Your task to perform on an android device: toggle wifi Image 0: 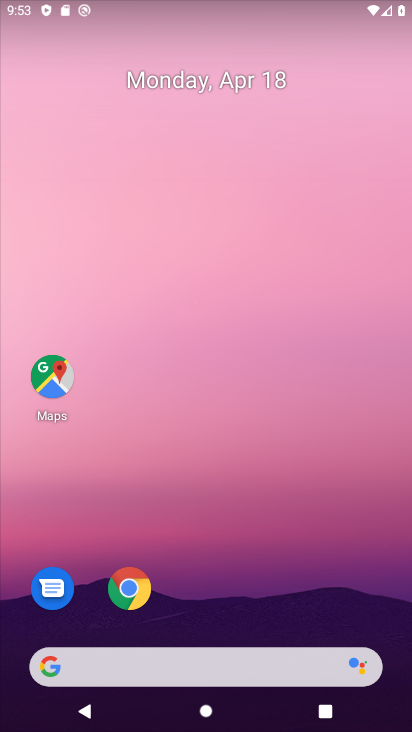
Step 0: drag from (388, 631) to (335, 211)
Your task to perform on an android device: toggle wifi Image 1: 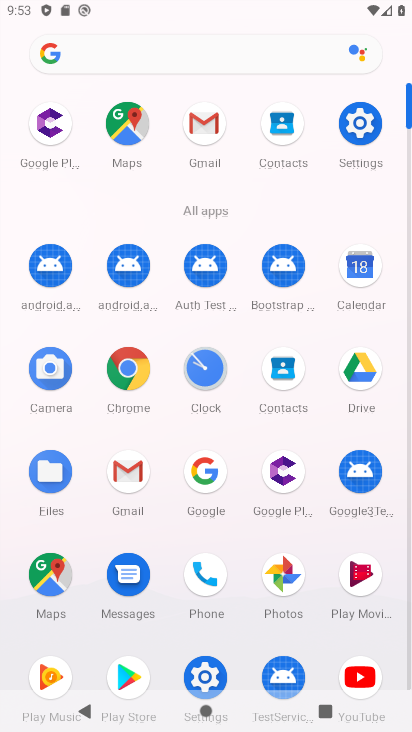
Step 1: click (197, 676)
Your task to perform on an android device: toggle wifi Image 2: 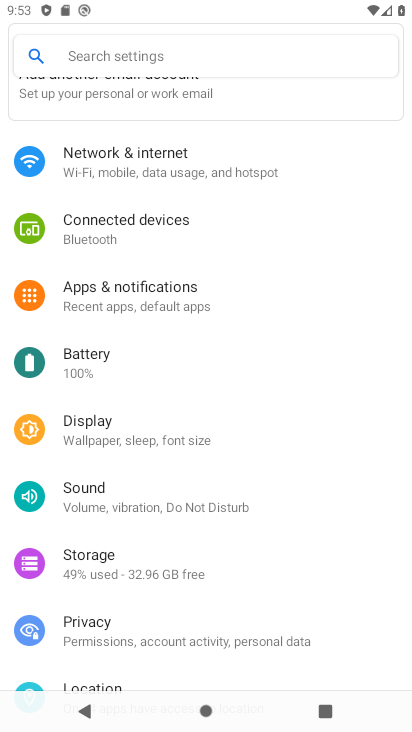
Step 2: click (129, 156)
Your task to perform on an android device: toggle wifi Image 3: 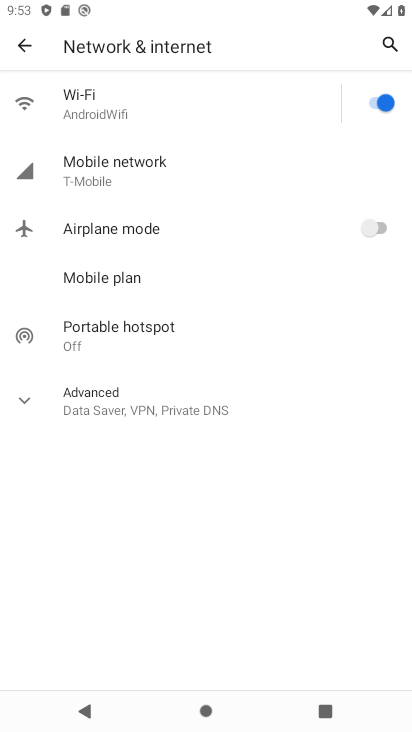
Step 3: click (374, 99)
Your task to perform on an android device: toggle wifi Image 4: 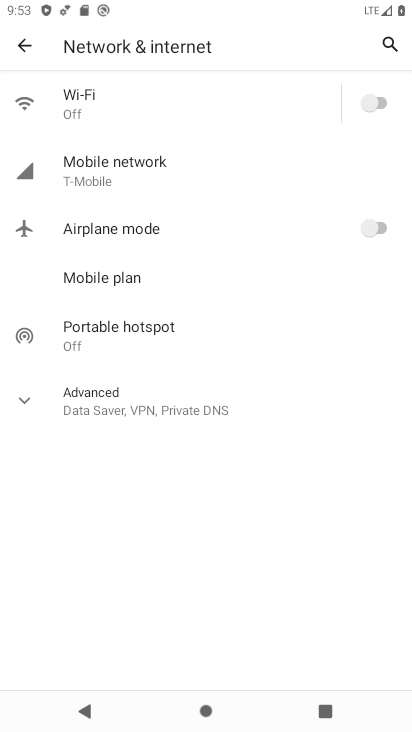
Step 4: task complete